Your task to perform on an android device: Open Wikipedia Image 0: 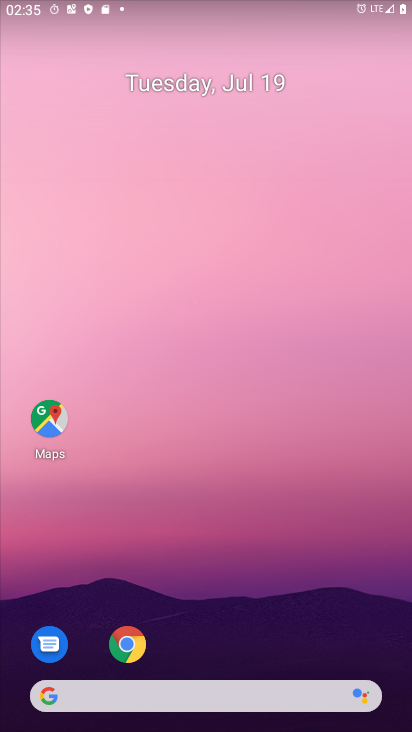
Step 0: click (131, 649)
Your task to perform on an android device: Open Wikipedia Image 1: 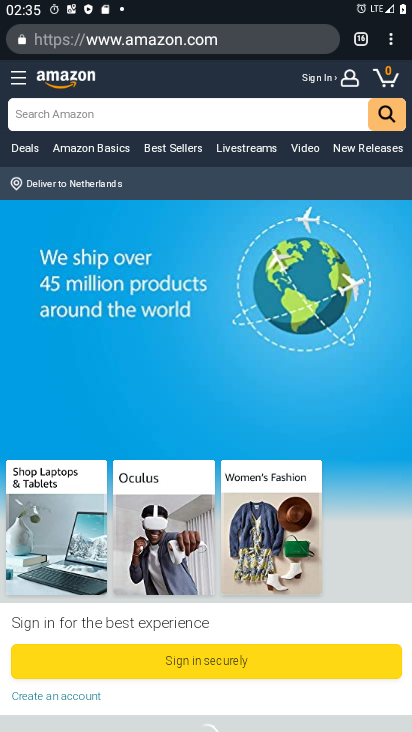
Step 1: click (393, 37)
Your task to perform on an android device: Open Wikipedia Image 2: 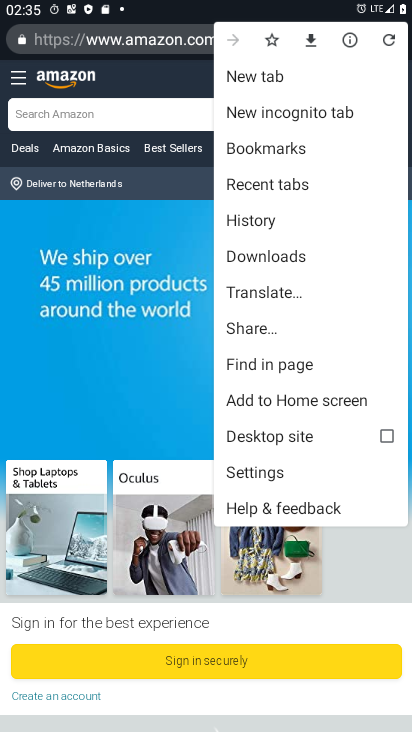
Step 2: click (252, 72)
Your task to perform on an android device: Open Wikipedia Image 3: 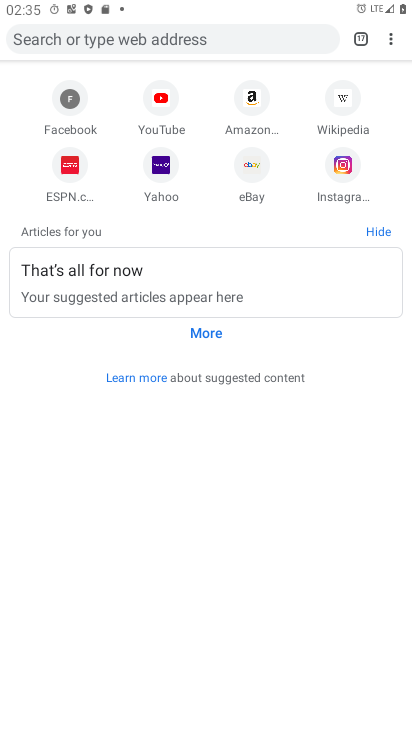
Step 3: click (338, 108)
Your task to perform on an android device: Open Wikipedia Image 4: 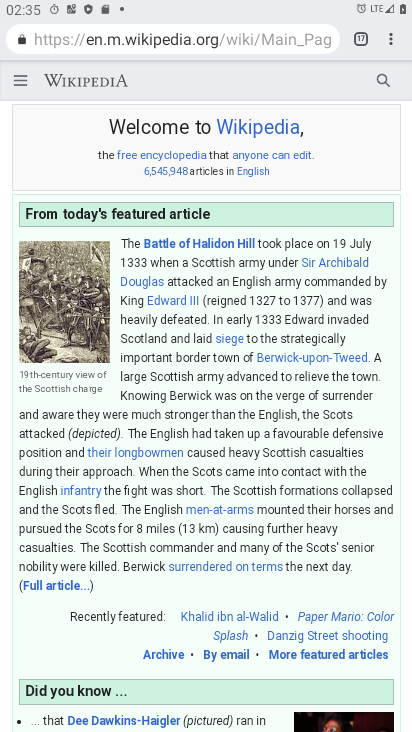
Step 4: task complete